Your task to perform on an android device: Go to Android settings Image 0: 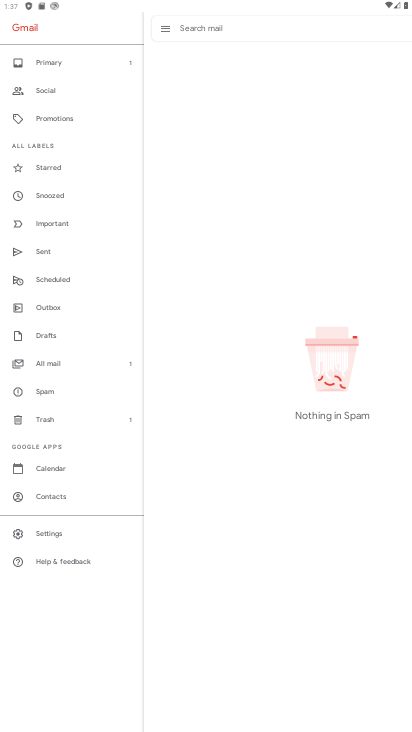
Step 0: press home button
Your task to perform on an android device: Go to Android settings Image 1: 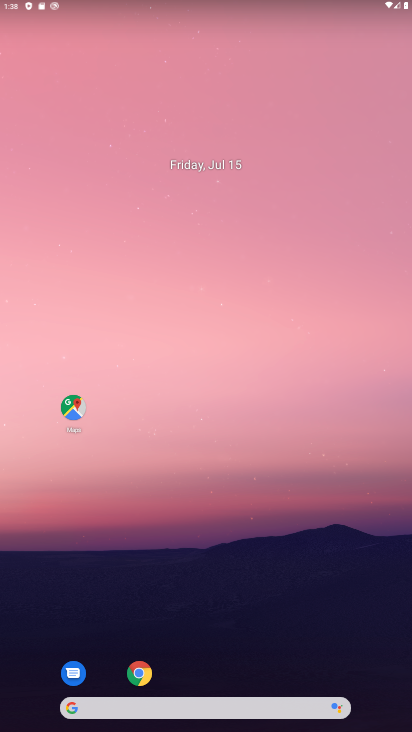
Step 1: drag from (303, 501) to (347, 45)
Your task to perform on an android device: Go to Android settings Image 2: 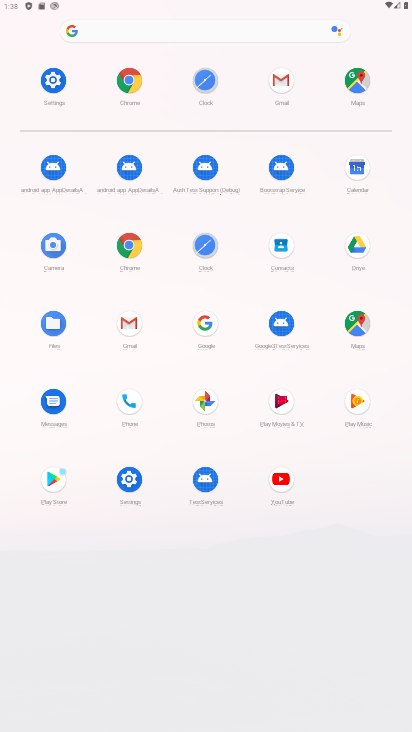
Step 2: click (55, 80)
Your task to perform on an android device: Go to Android settings Image 3: 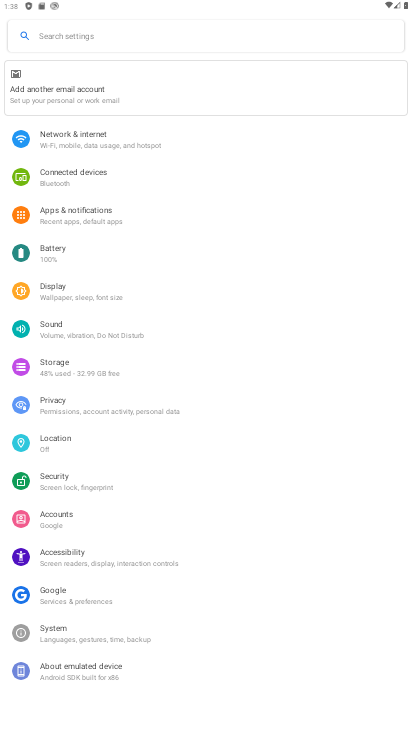
Step 3: task complete